Your task to perform on an android device: find which apps use the phone's location Image 0: 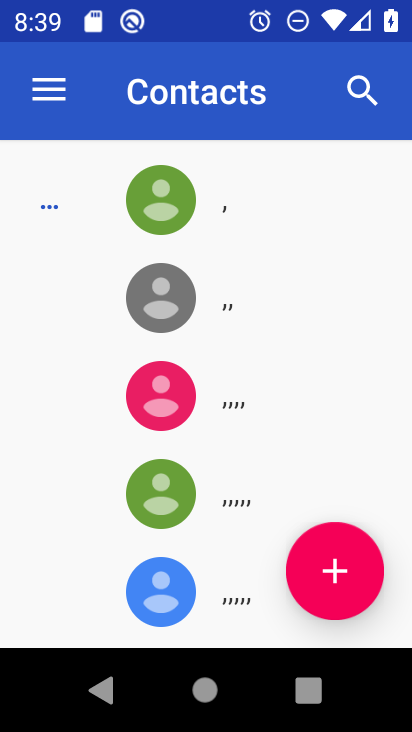
Step 0: press home button
Your task to perform on an android device: find which apps use the phone's location Image 1: 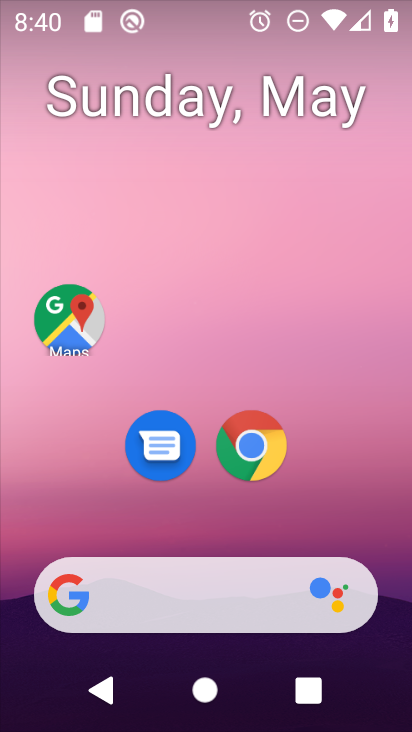
Step 1: drag from (240, 470) to (411, 327)
Your task to perform on an android device: find which apps use the phone's location Image 2: 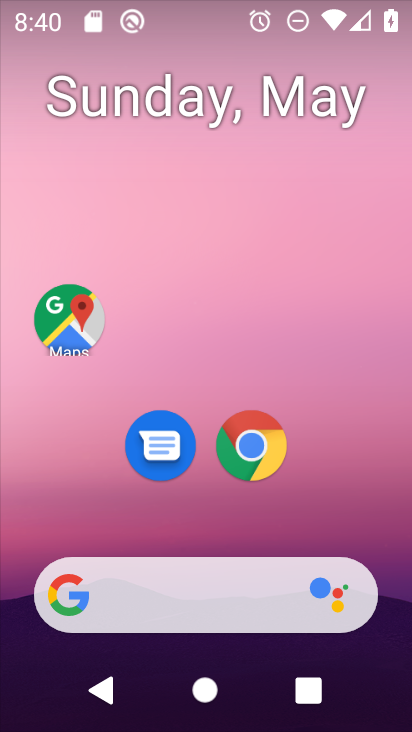
Step 2: drag from (282, 672) to (351, 3)
Your task to perform on an android device: find which apps use the phone's location Image 3: 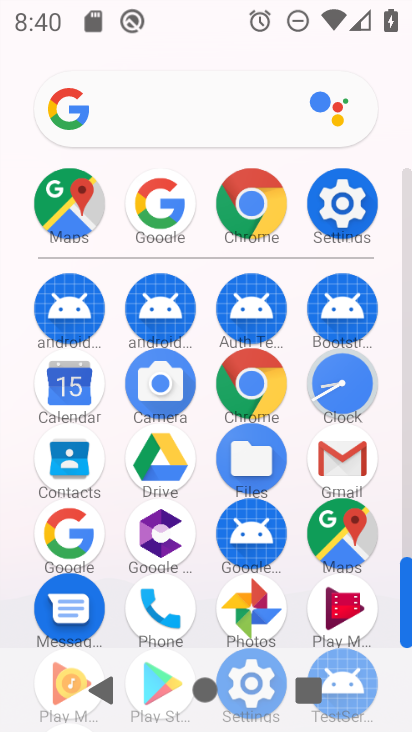
Step 3: click (349, 222)
Your task to perform on an android device: find which apps use the phone's location Image 4: 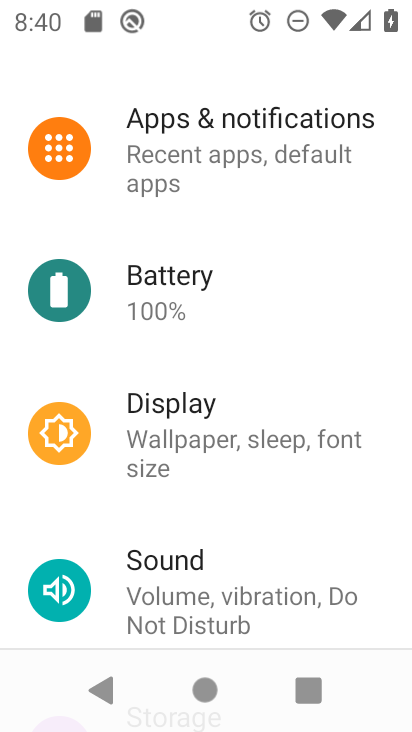
Step 4: drag from (258, 546) to (321, 90)
Your task to perform on an android device: find which apps use the phone's location Image 5: 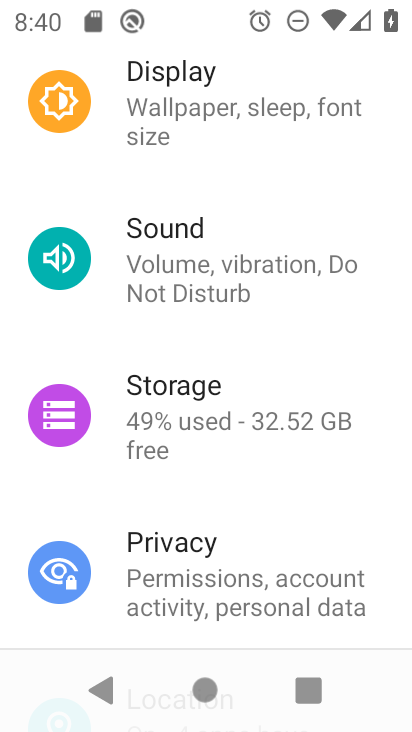
Step 5: drag from (219, 499) to (223, 203)
Your task to perform on an android device: find which apps use the phone's location Image 6: 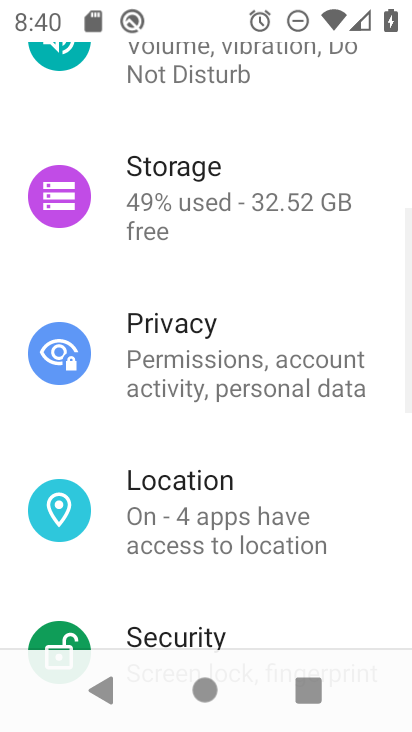
Step 6: click (279, 530)
Your task to perform on an android device: find which apps use the phone's location Image 7: 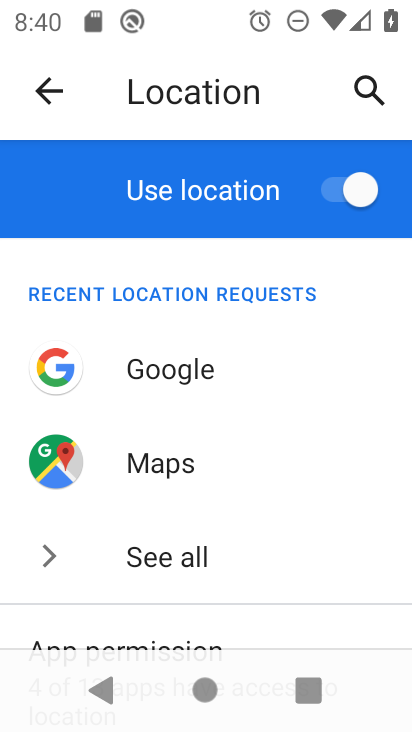
Step 7: drag from (228, 560) to (277, 136)
Your task to perform on an android device: find which apps use the phone's location Image 8: 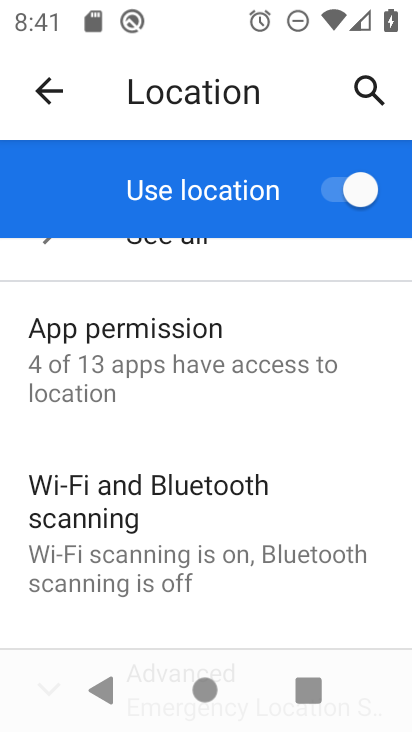
Step 8: drag from (254, 377) to (199, 720)
Your task to perform on an android device: find which apps use the phone's location Image 9: 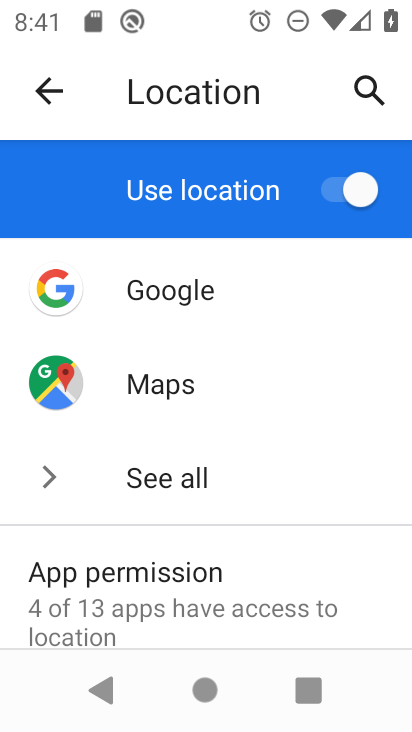
Step 9: click (249, 606)
Your task to perform on an android device: find which apps use the phone's location Image 10: 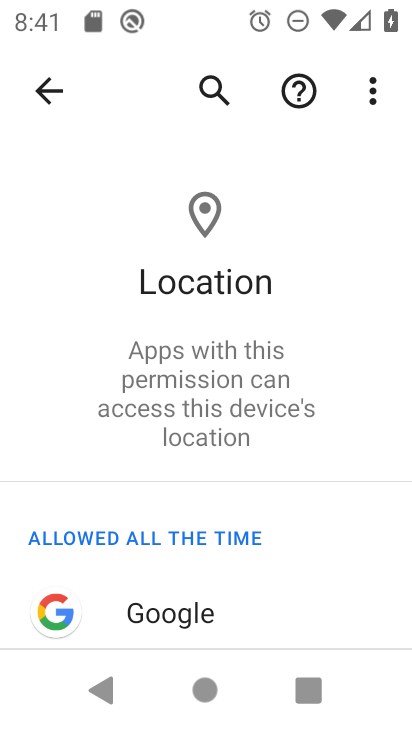
Step 10: task complete